Your task to perform on an android device: Open sound settings Image 0: 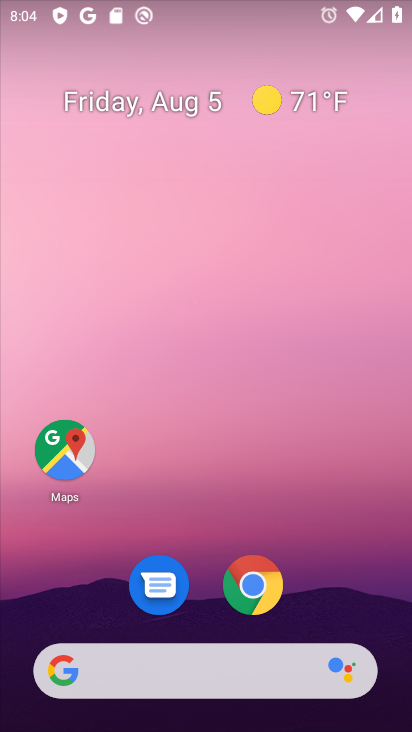
Step 0: drag from (338, 515) to (367, 23)
Your task to perform on an android device: Open sound settings Image 1: 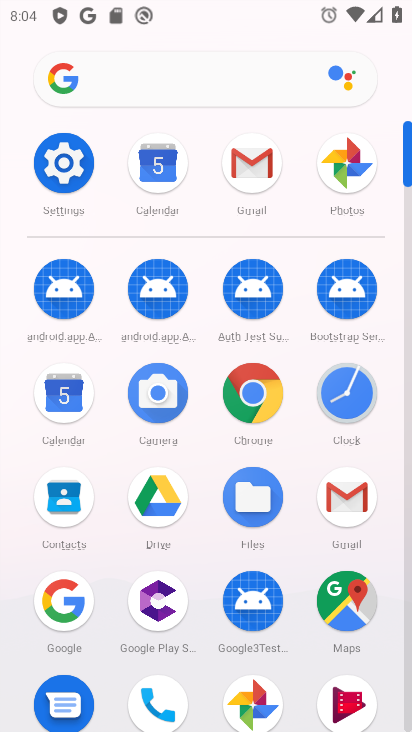
Step 1: click (66, 165)
Your task to perform on an android device: Open sound settings Image 2: 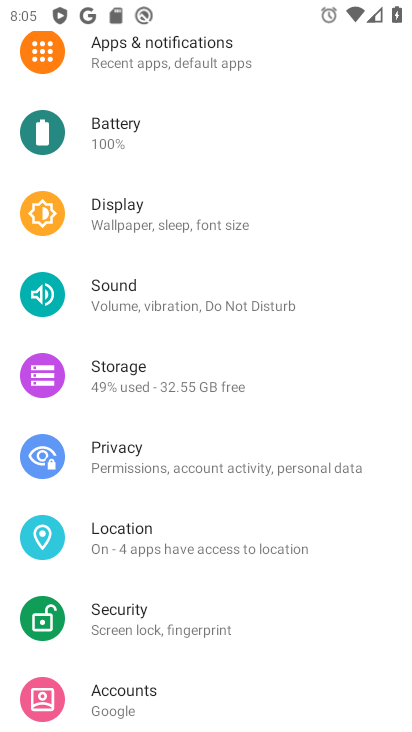
Step 2: click (129, 292)
Your task to perform on an android device: Open sound settings Image 3: 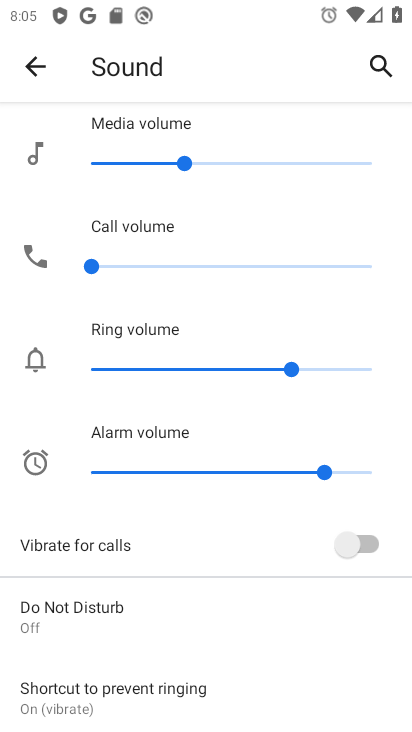
Step 3: task complete